Your task to perform on an android device: change your default location settings in chrome Image 0: 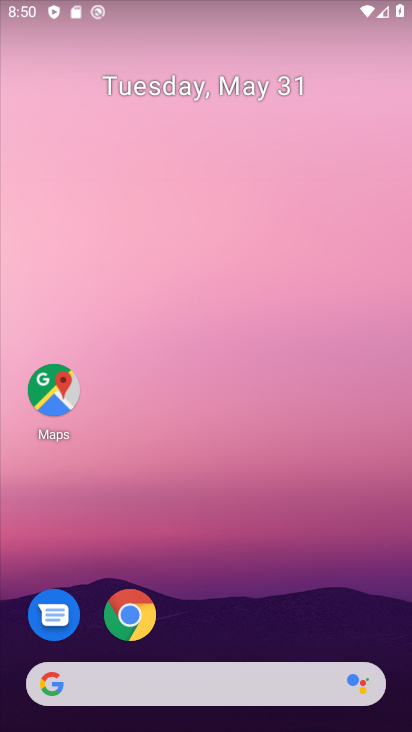
Step 0: click (119, 622)
Your task to perform on an android device: change your default location settings in chrome Image 1: 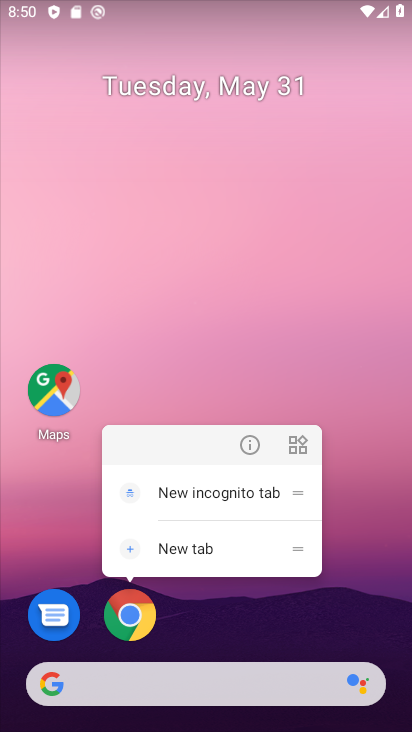
Step 1: click (134, 628)
Your task to perform on an android device: change your default location settings in chrome Image 2: 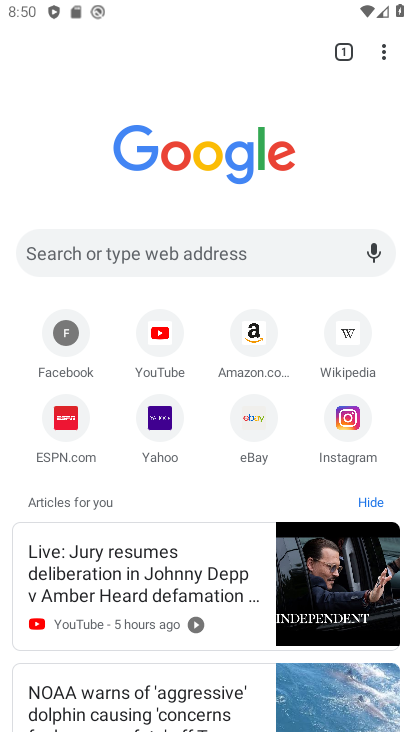
Step 2: drag from (380, 49) to (197, 428)
Your task to perform on an android device: change your default location settings in chrome Image 3: 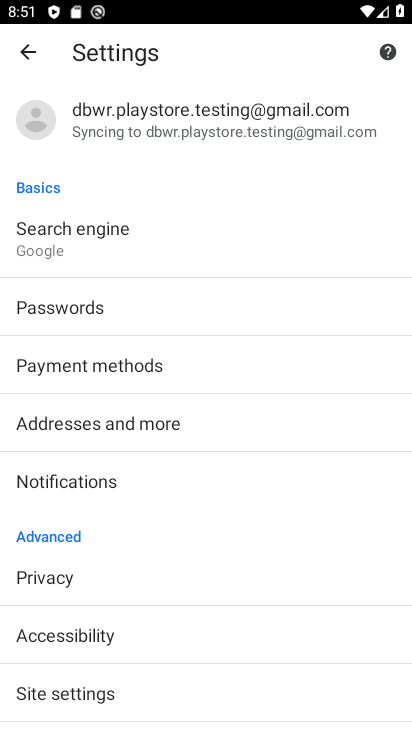
Step 3: click (83, 689)
Your task to perform on an android device: change your default location settings in chrome Image 4: 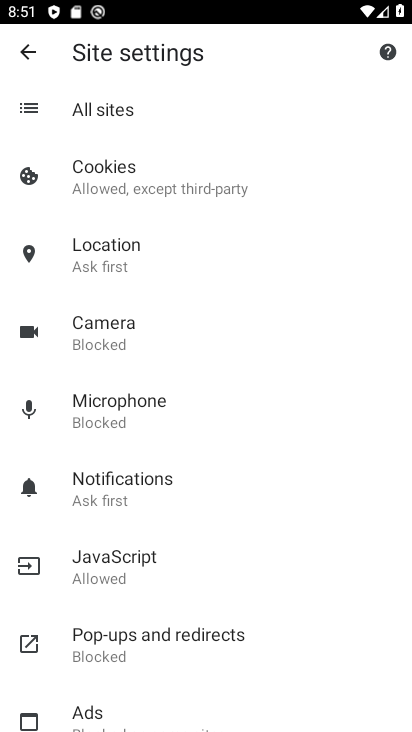
Step 4: click (107, 248)
Your task to perform on an android device: change your default location settings in chrome Image 5: 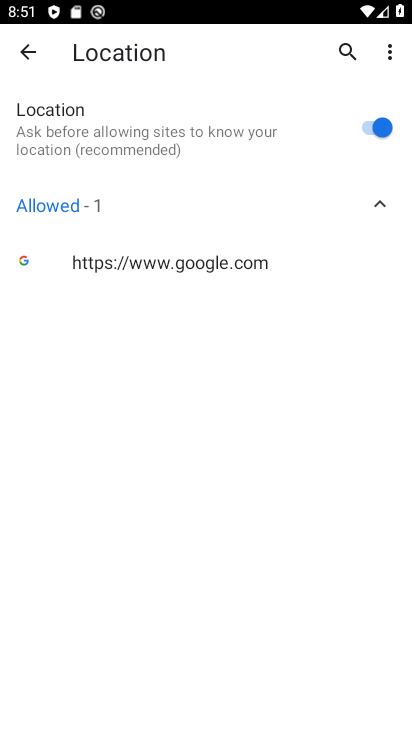
Step 5: click (361, 120)
Your task to perform on an android device: change your default location settings in chrome Image 6: 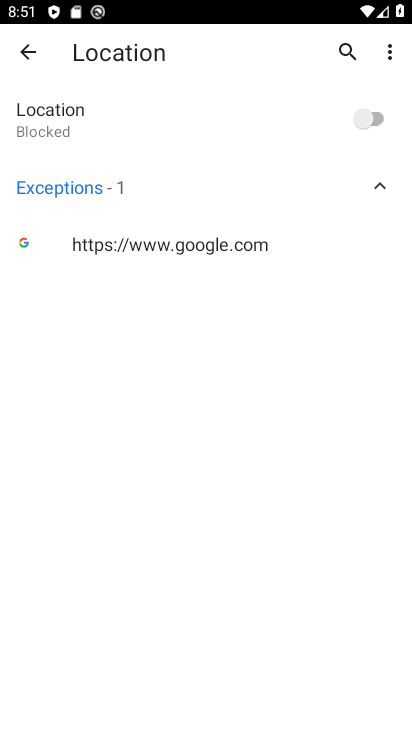
Step 6: task complete